Your task to perform on an android device: Go to Reddit.com Image 0: 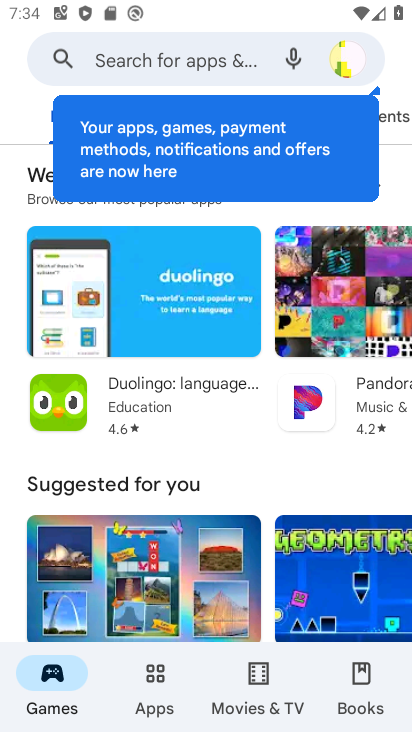
Step 0: press home button
Your task to perform on an android device: Go to Reddit.com Image 1: 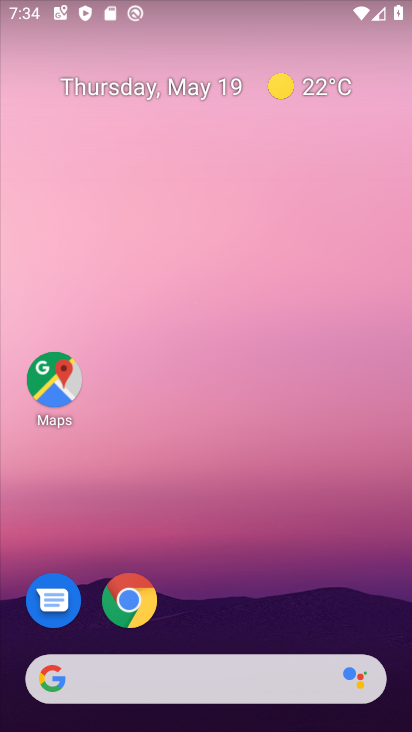
Step 1: click (126, 608)
Your task to perform on an android device: Go to Reddit.com Image 2: 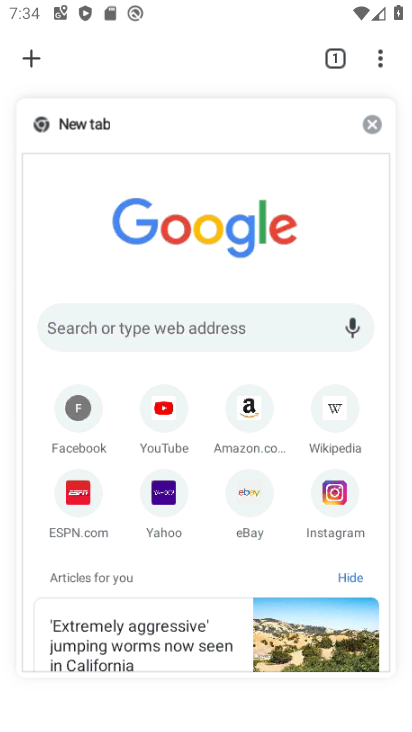
Step 2: click (167, 118)
Your task to perform on an android device: Go to Reddit.com Image 3: 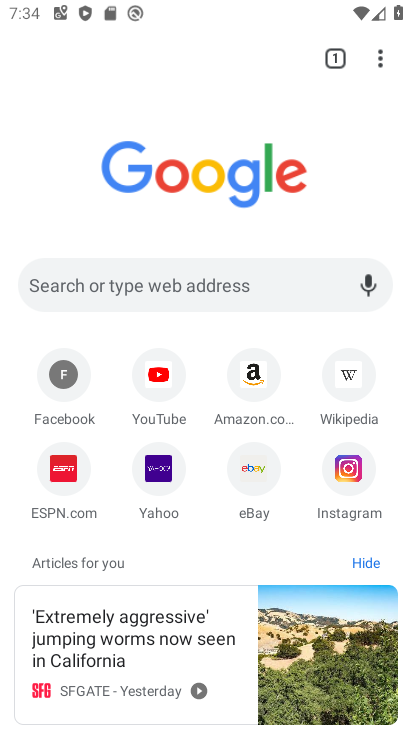
Step 3: click (276, 288)
Your task to perform on an android device: Go to Reddit.com Image 4: 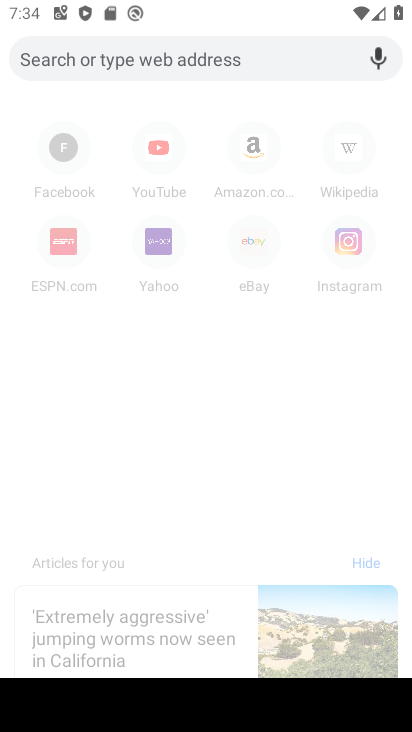
Step 4: type "reddit.com"
Your task to perform on an android device: Go to Reddit.com Image 5: 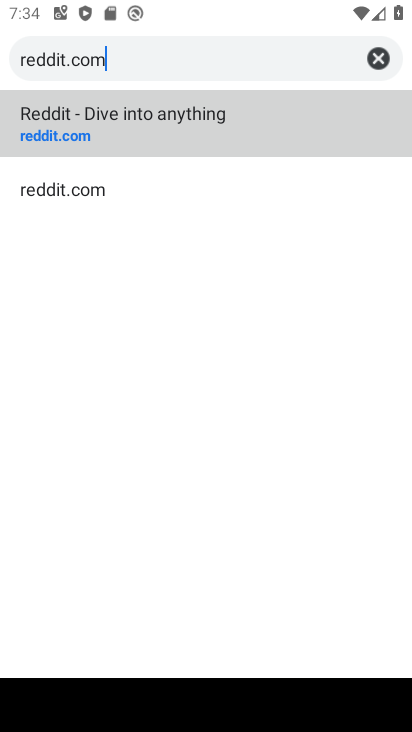
Step 5: click (173, 132)
Your task to perform on an android device: Go to Reddit.com Image 6: 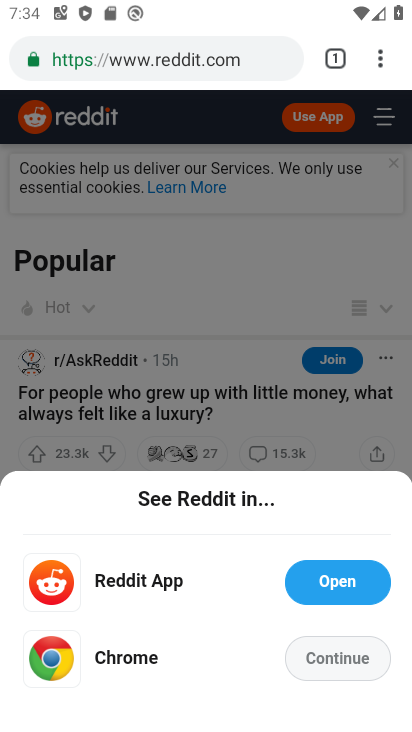
Step 6: task complete